Your task to perform on an android device: toggle sleep mode Image 0: 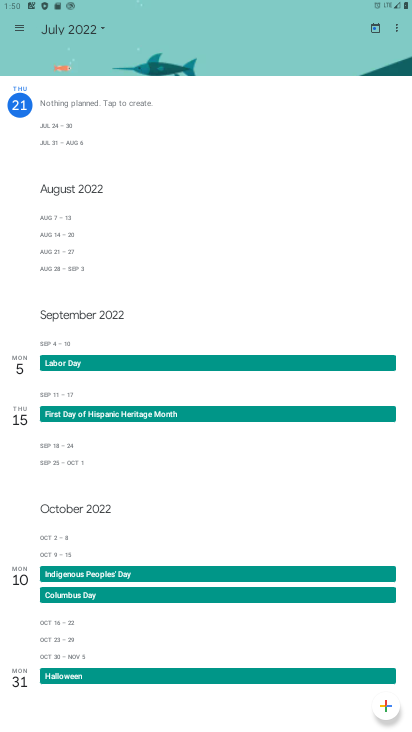
Step 0: press home button
Your task to perform on an android device: toggle sleep mode Image 1: 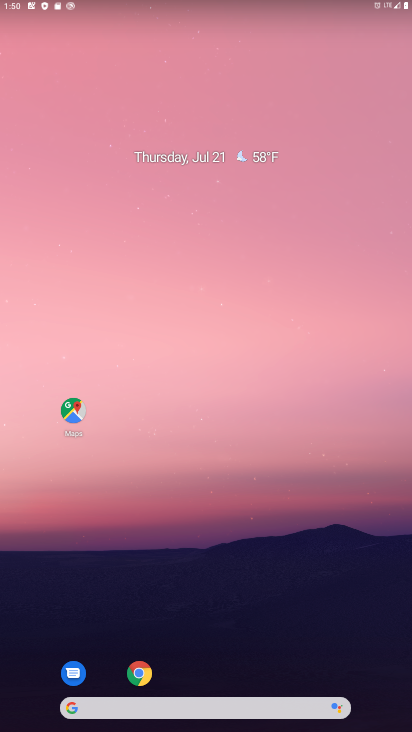
Step 1: drag from (226, 693) to (222, 187)
Your task to perform on an android device: toggle sleep mode Image 2: 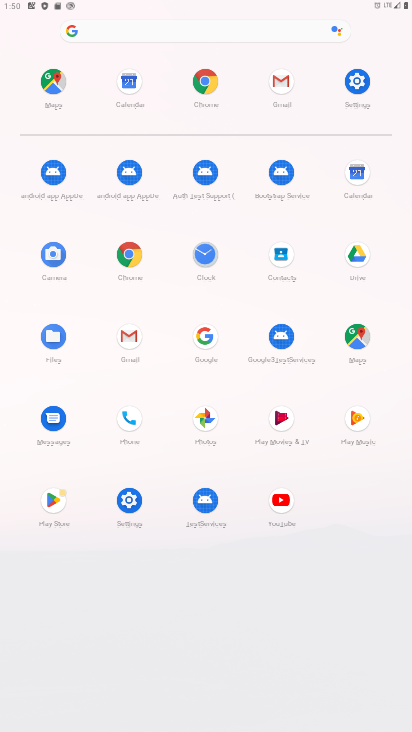
Step 2: click (364, 76)
Your task to perform on an android device: toggle sleep mode Image 3: 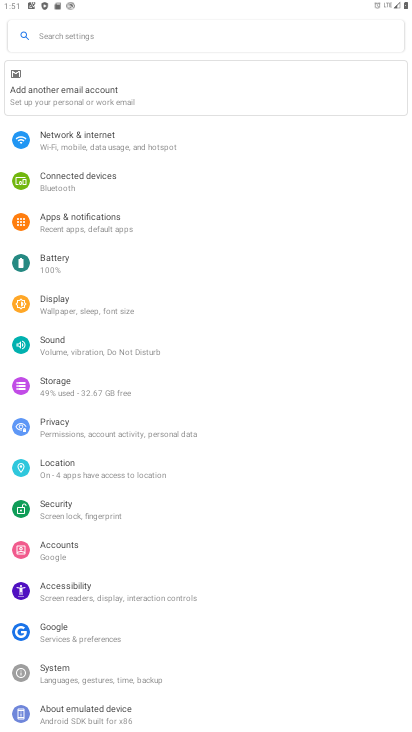
Step 3: task complete